Your task to perform on an android device: When is my next appointment? Image 0: 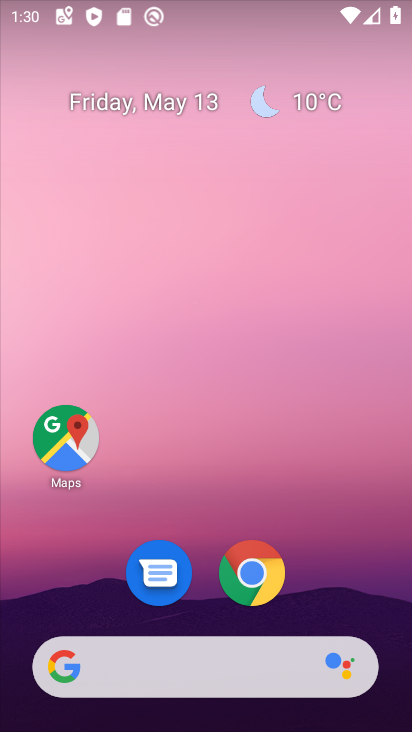
Step 0: drag from (326, 505) to (270, 68)
Your task to perform on an android device: When is my next appointment? Image 1: 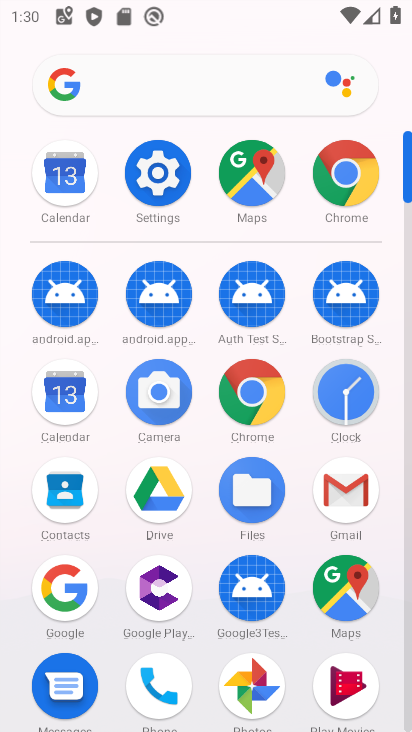
Step 1: drag from (3, 570) to (4, 245)
Your task to perform on an android device: When is my next appointment? Image 2: 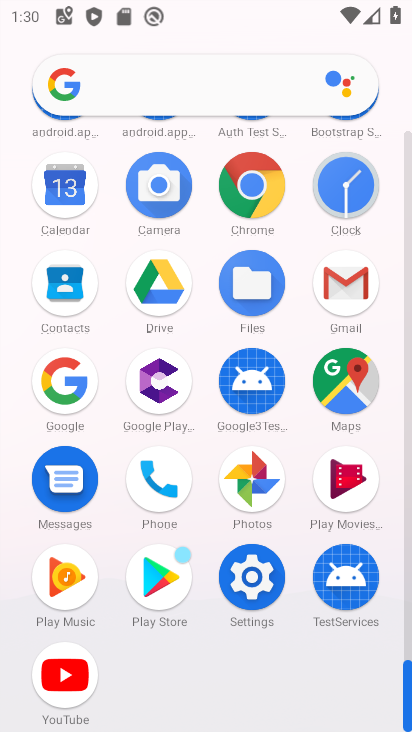
Step 2: drag from (11, 598) to (0, 261)
Your task to perform on an android device: When is my next appointment? Image 3: 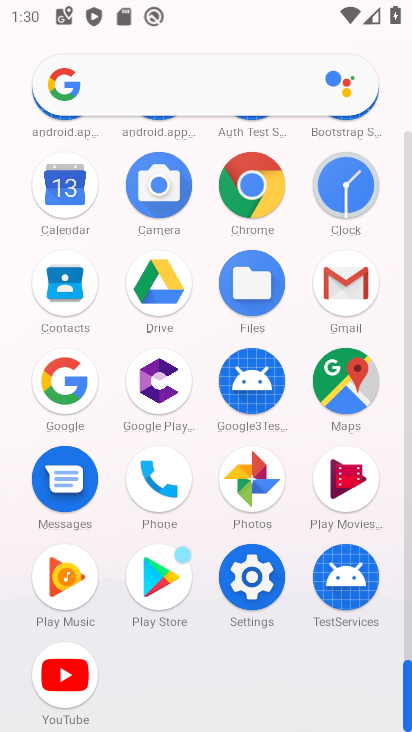
Step 3: click (61, 176)
Your task to perform on an android device: When is my next appointment? Image 4: 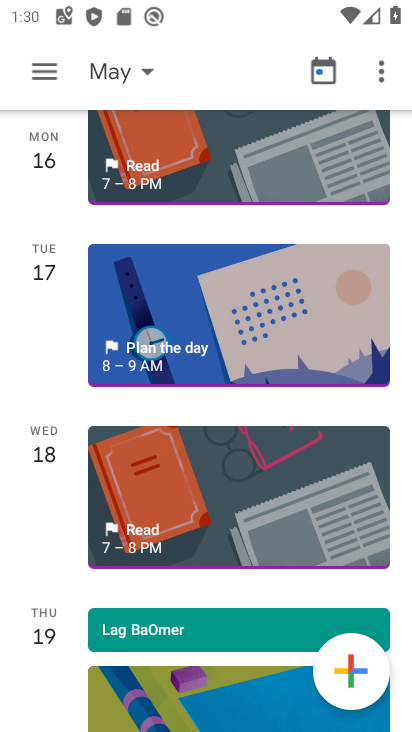
Step 4: click (322, 73)
Your task to perform on an android device: When is my next appointment? Image 5: 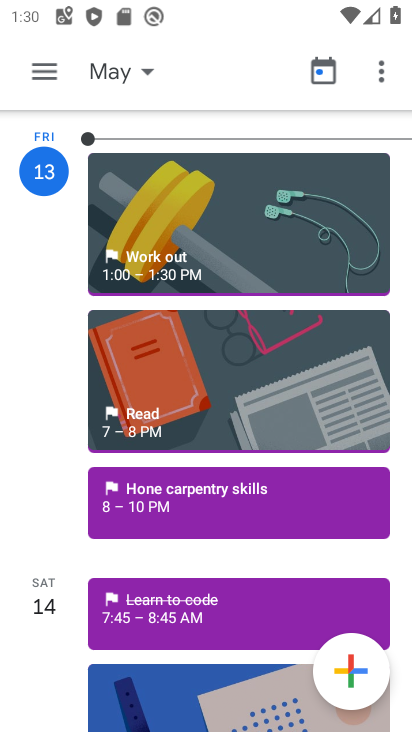
Step 5: click (25, 64)
Your task to perform on an android device: When is my next appointment? Image 6: 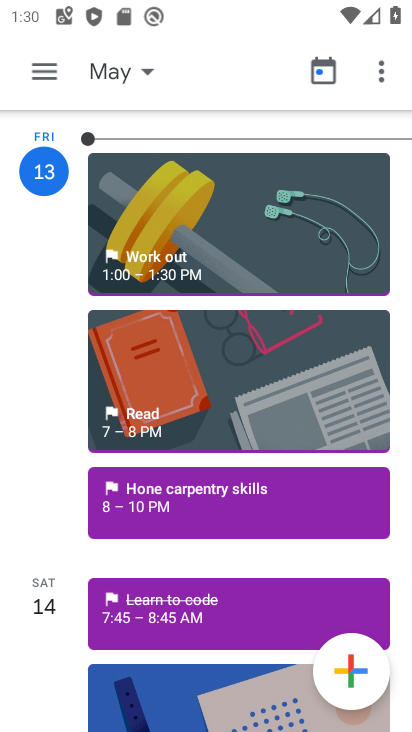
Step 6: click (42, 63)
Your task to perform on an android device: When is my next appointment? Image 7: 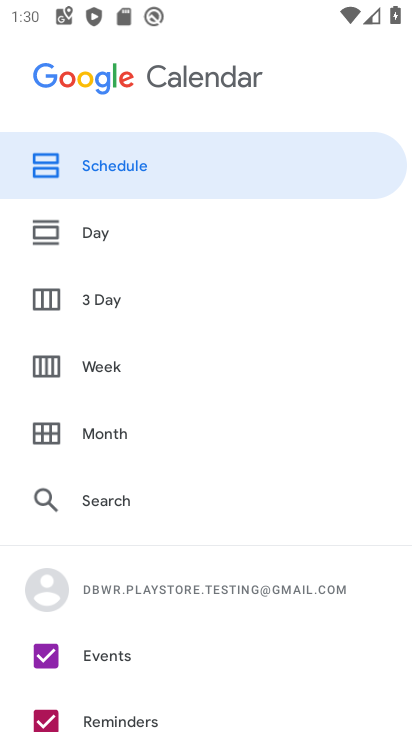
Step 7: click (152, 153)
Your task to perform on an android device: When is my next appointment? Image 8: 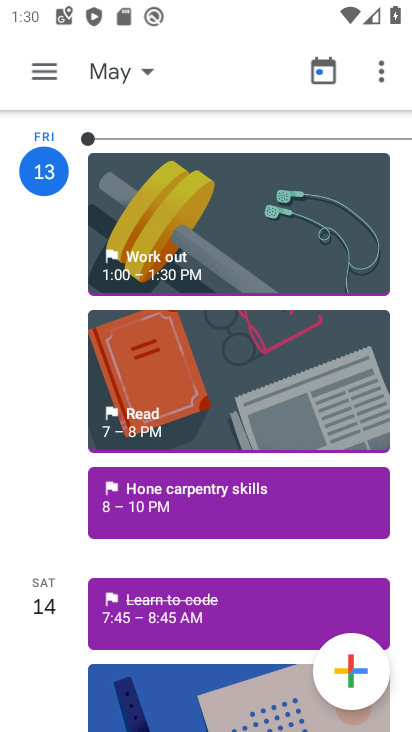
Step 8: task complete